Your task to perform on an android device: What is the price of a 12' ladder at Lowes? Image 0: 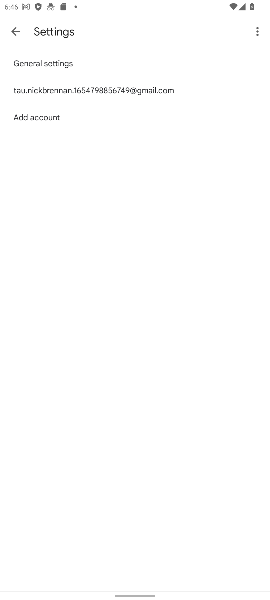
Step 0: press home button
Your task to perform on an android device: What is the price of a 12' ladder at Lowes? Image 1: 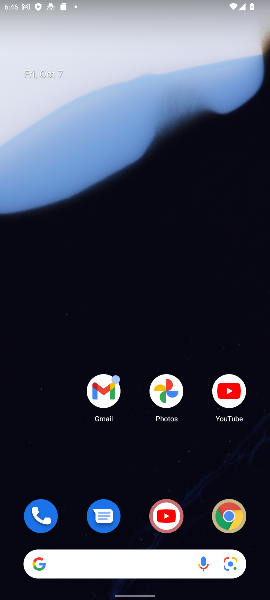
Step 1: click (142, 556)
Your task to perform on an android device: What is the price of a 12' ladder at Lowes? Image 2: 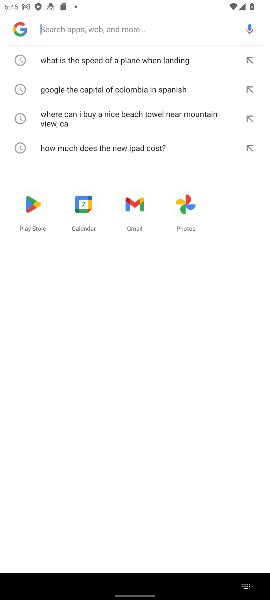
Step 2: type "What is the price of a 12' ladder at Lowes?"
Your task to perform on an android device: What is the price of a 12' ladder at Lowes? Image 3: 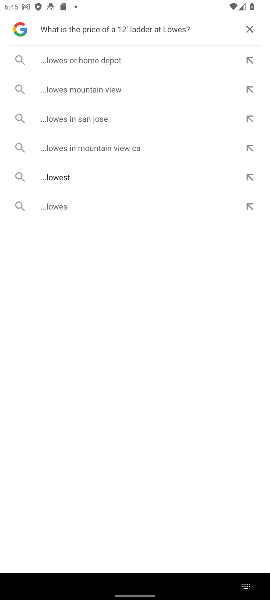
Step 3: click (123, 69)
Your task to perform on an android device: What is the price of a 12' ladder at Lowes? Image 4: 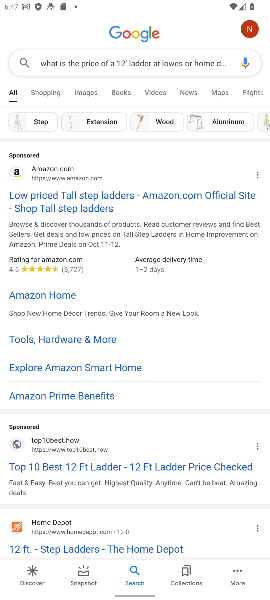
Step 4: task complete